Your task to perform on an android device: Open calendar and show me the third week of next month Image 0: 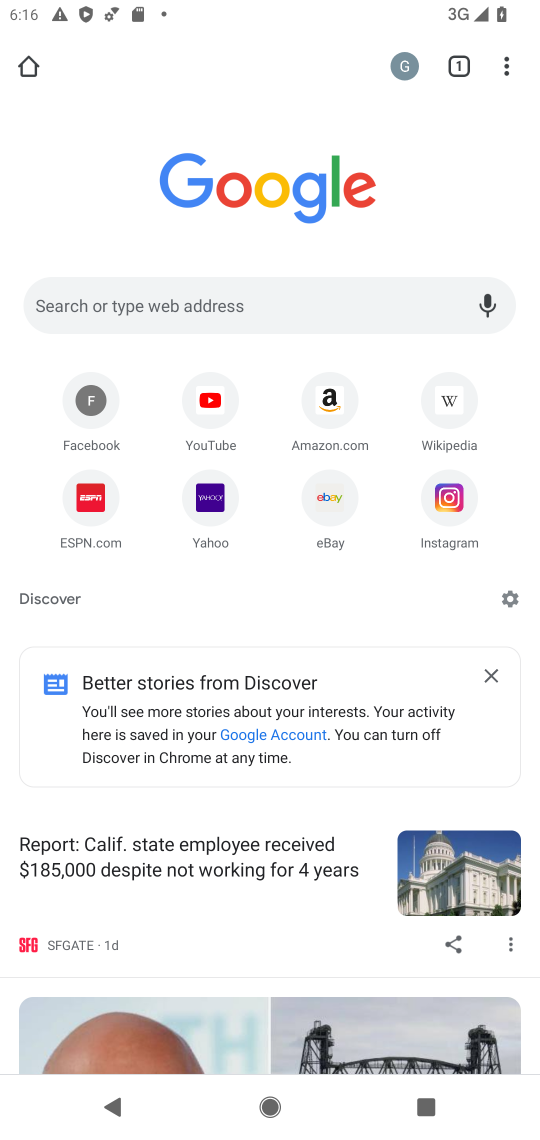
Step 0: press home button
Your task to perform on an android device: Open calendar and show me the third week of next month Image 1: 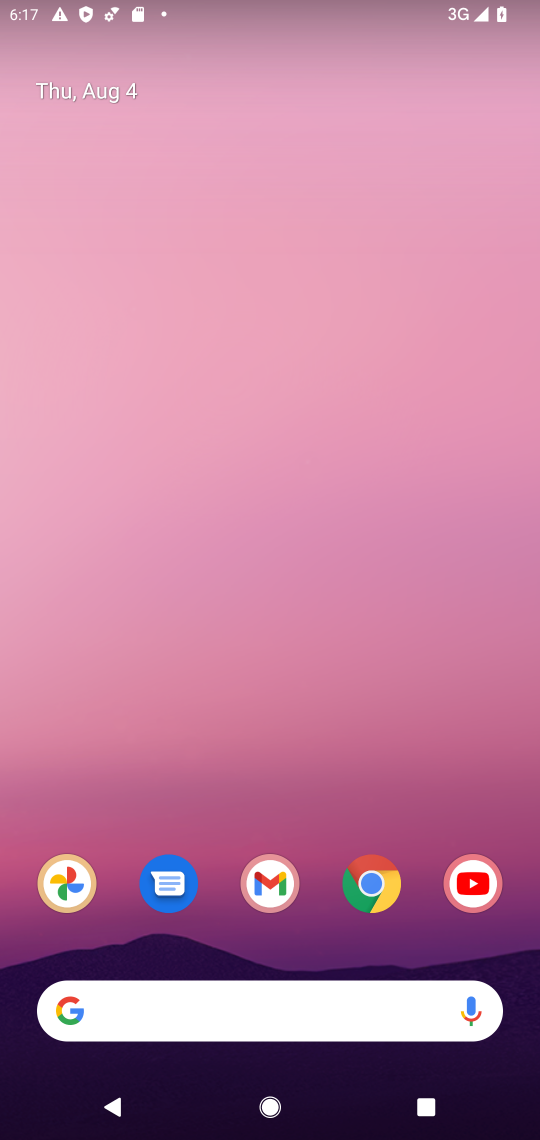
Step 1: drag from (317, 820) to (291, 116)
Your task to perform on an android device: Open calendar and show me the third week of next month Image 2: 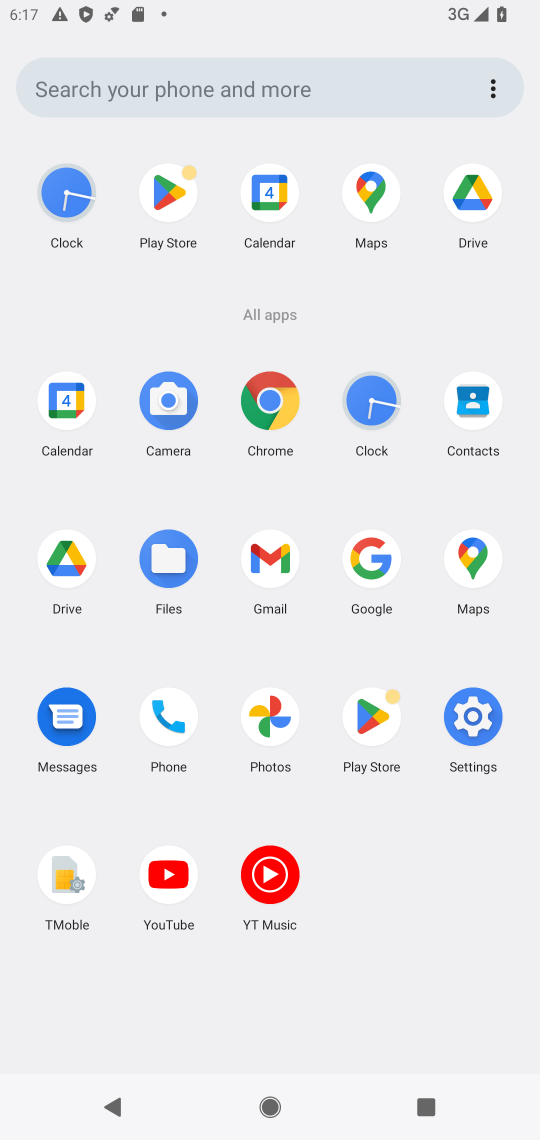
Step 2: click (259, 205)
Your task to perform on an android device: Open calendar and show me the third week of next month Image 3: 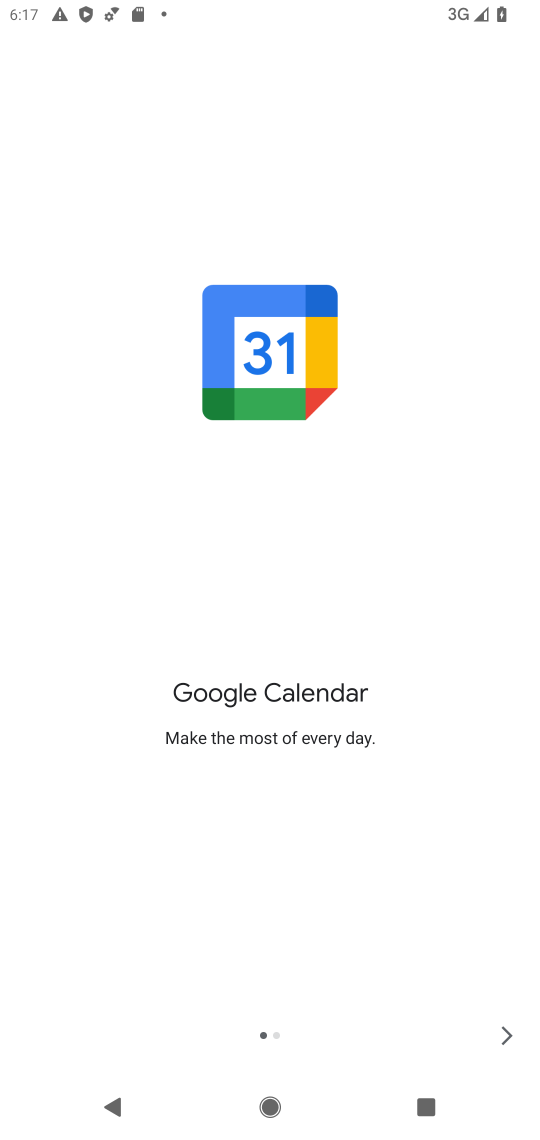
Step 3: click (506, 1025)
Your task to perform on an android device: Open calendar and show me the third week of next month Image 4: 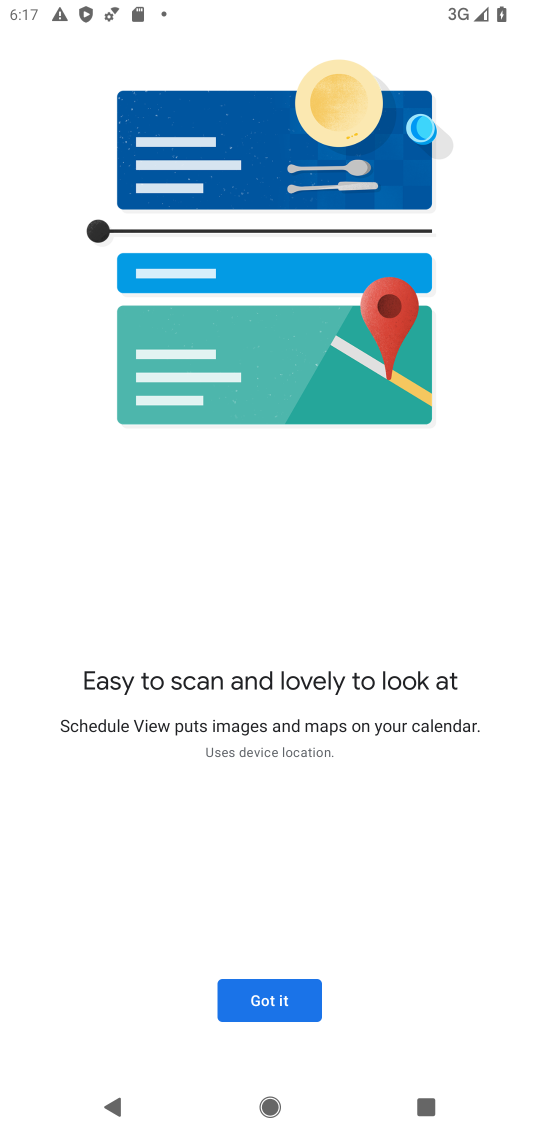
Step 4: click (302, 985)
Your task to perform on an android device: Open calendar and show me the third week of next month Image 5: 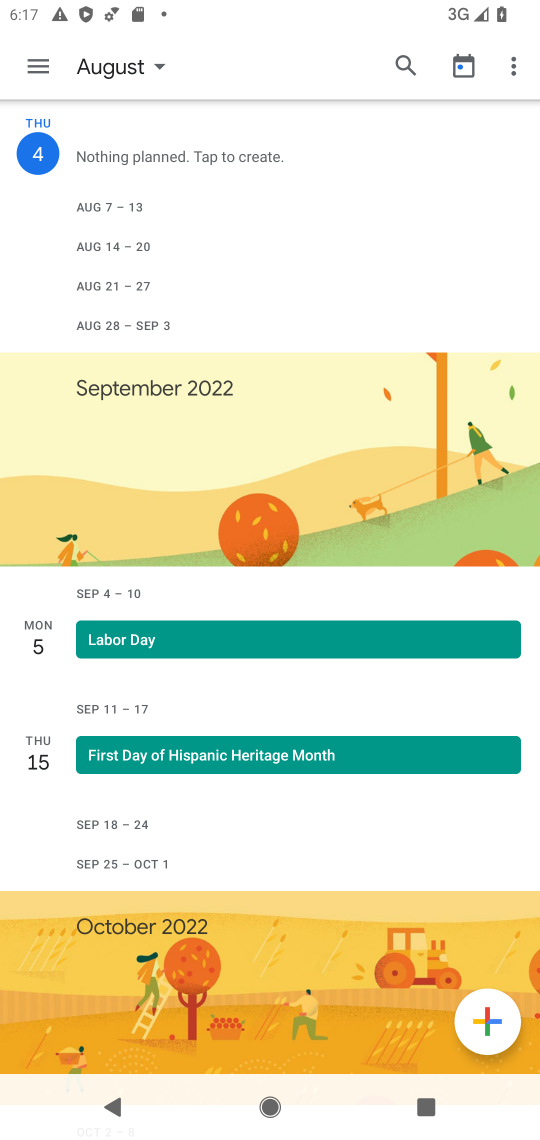
Step 5: click (29, 62)
Your task to perform on an android device: Open calendar and show me the third week of next month Image 6: 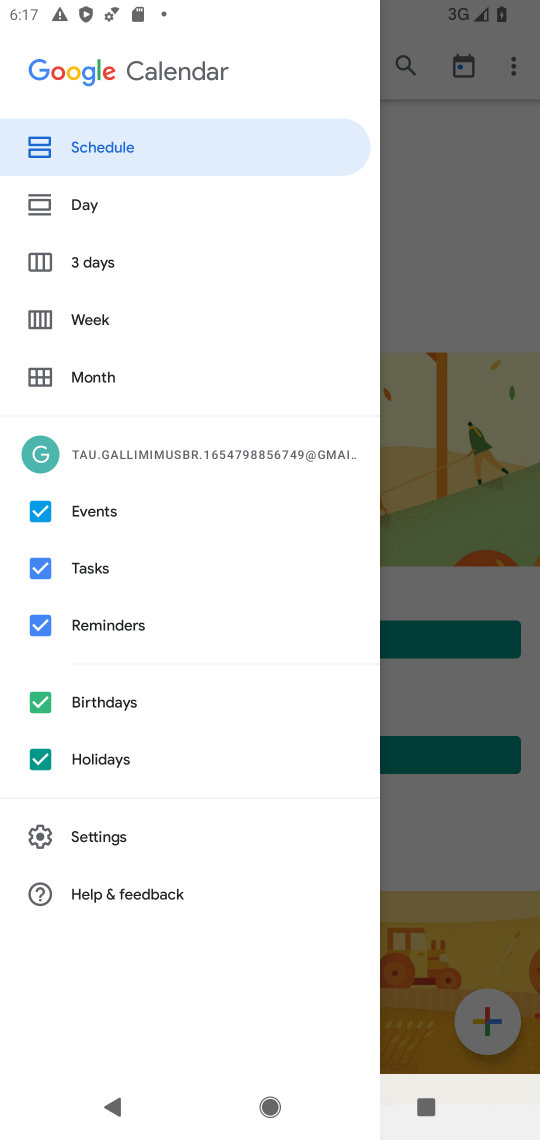
Step 6: click (127, 319)
Your task to perform on an android device: Open calendar and show me the third week of next month Image 7: 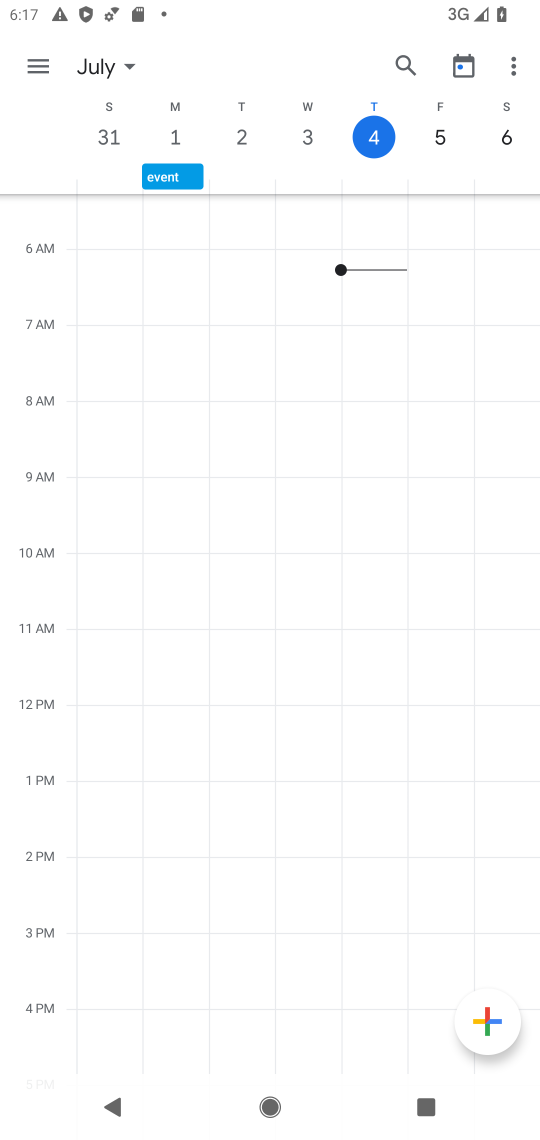
Step 7: click (123, 74)
Your task to perform on an android device: Open calendar and show me the third week of next month Image 8: 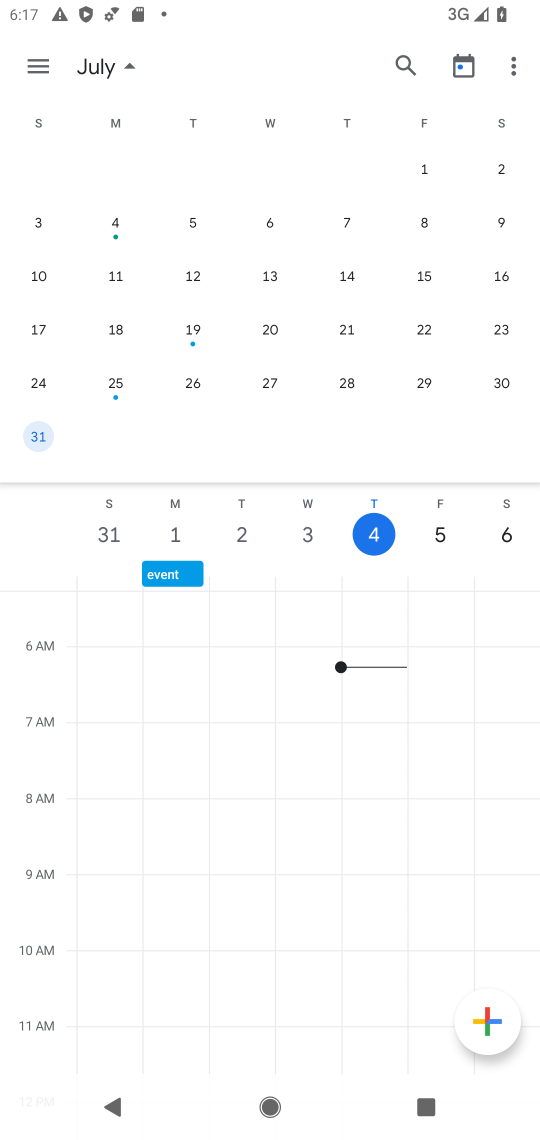
Step 8: drag from (497, 316) to (31, 267)
Your task to perform on an android device: Open calendar and show me the third week of next month Image 9: 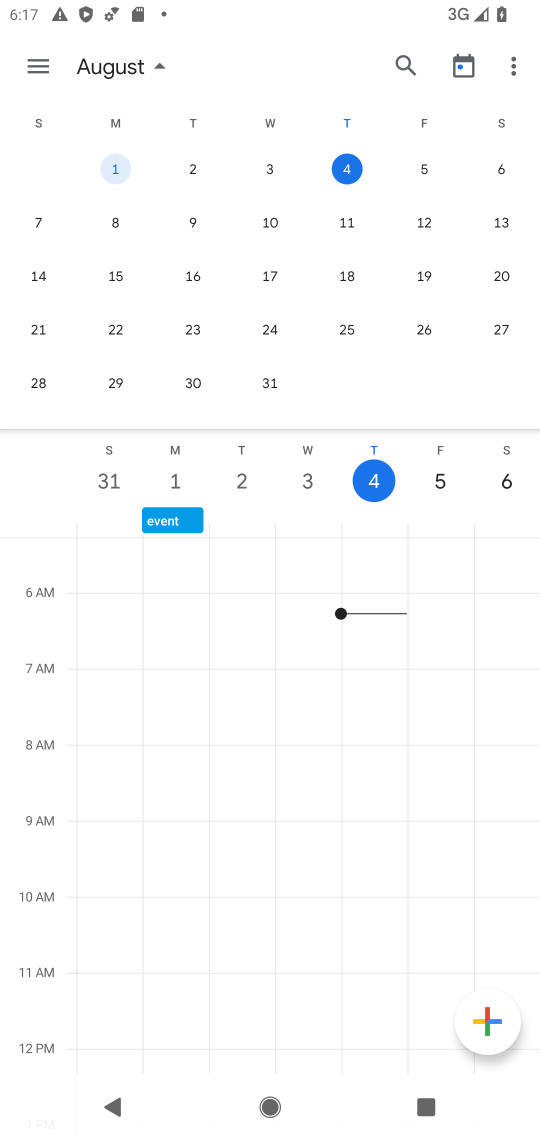
Step 9: drag from (530, 289) to (15, 270)
Your task to perform on an android device: Open calendar and show me the third week of next month Image 10: 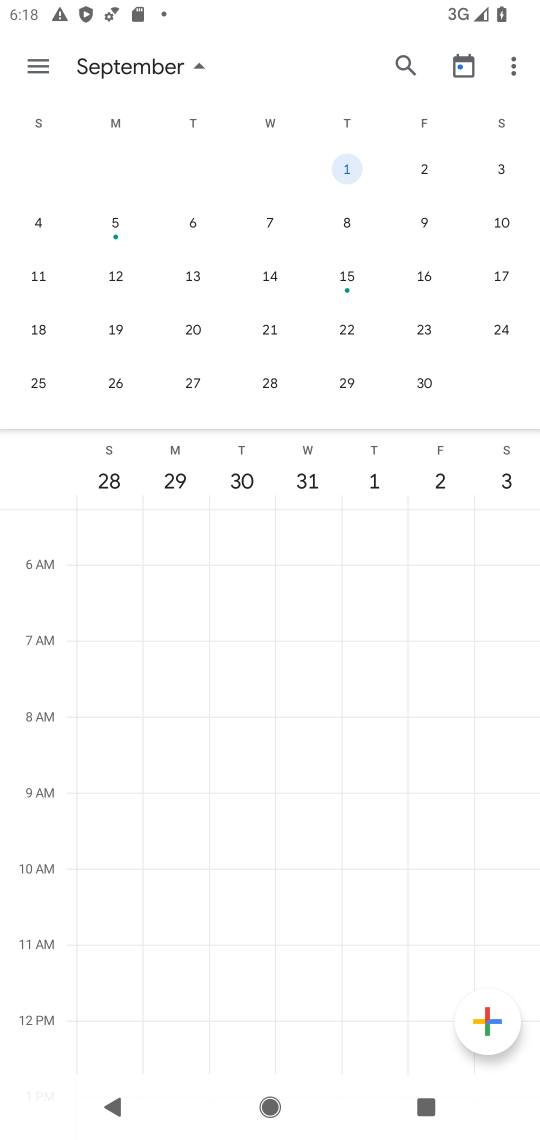
Step 10: click (269, 281)
Your task to perform on an android device: Open calendar and show me the third week of next month Image 11: 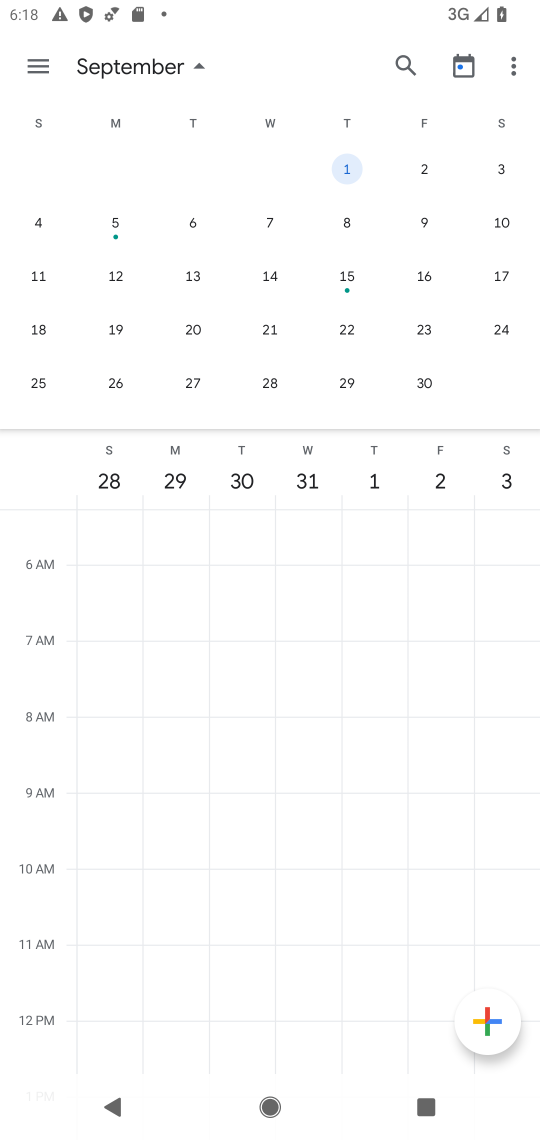
Step 11: click (269, 330)
Your task to perform on an android device: Open calendar and show me the third week of next month Image 12: 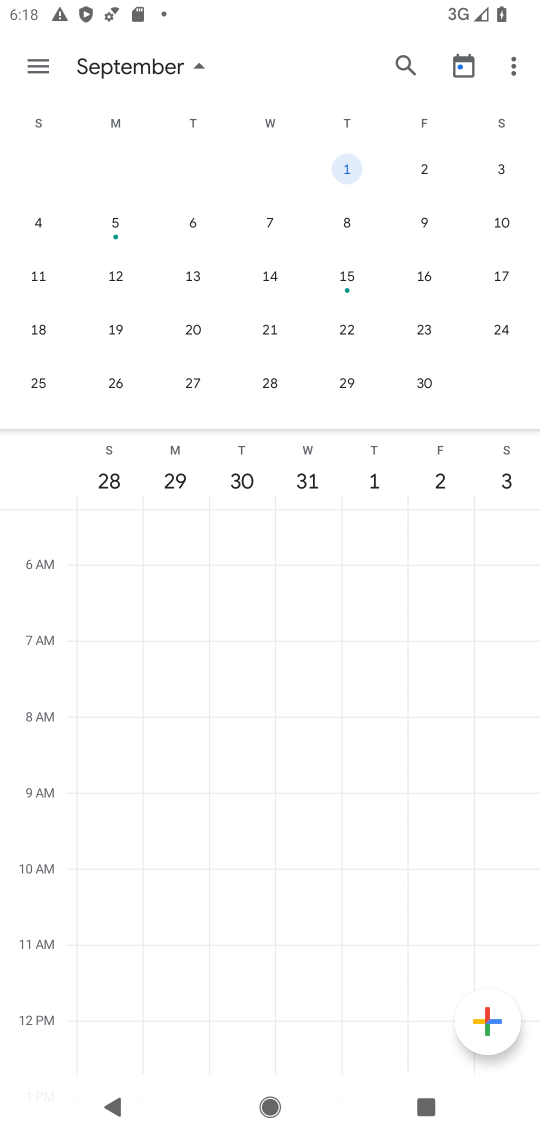
Step 12: click (269, 330)
Your task to perform on an android device: Open calendar and show me the third week of next month Image 13: 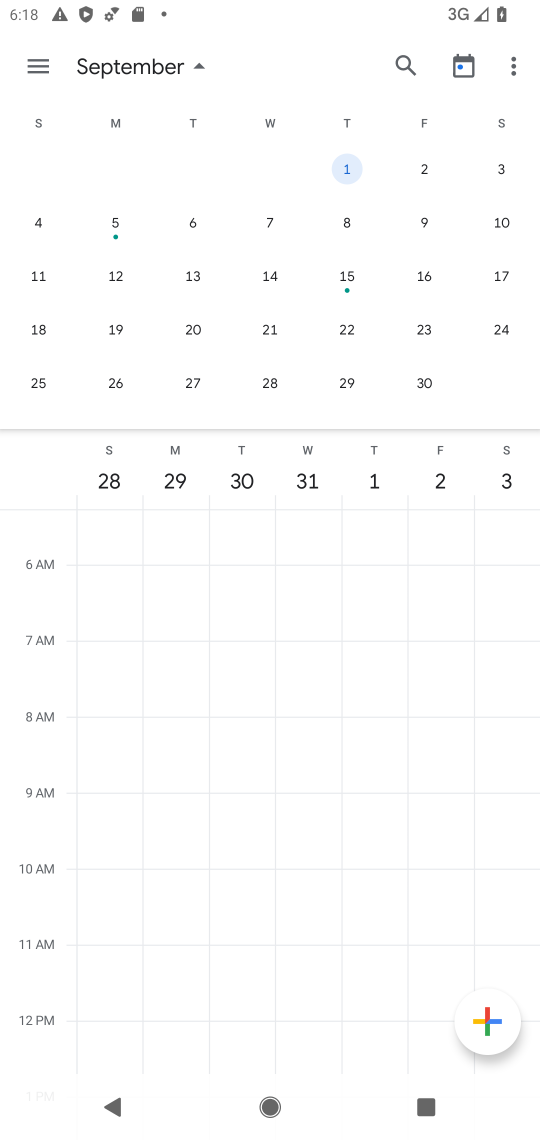
Step 13: click (269, 330)
Your task to perform on an android device: Open calendar and show me the third week of next month Image 14: 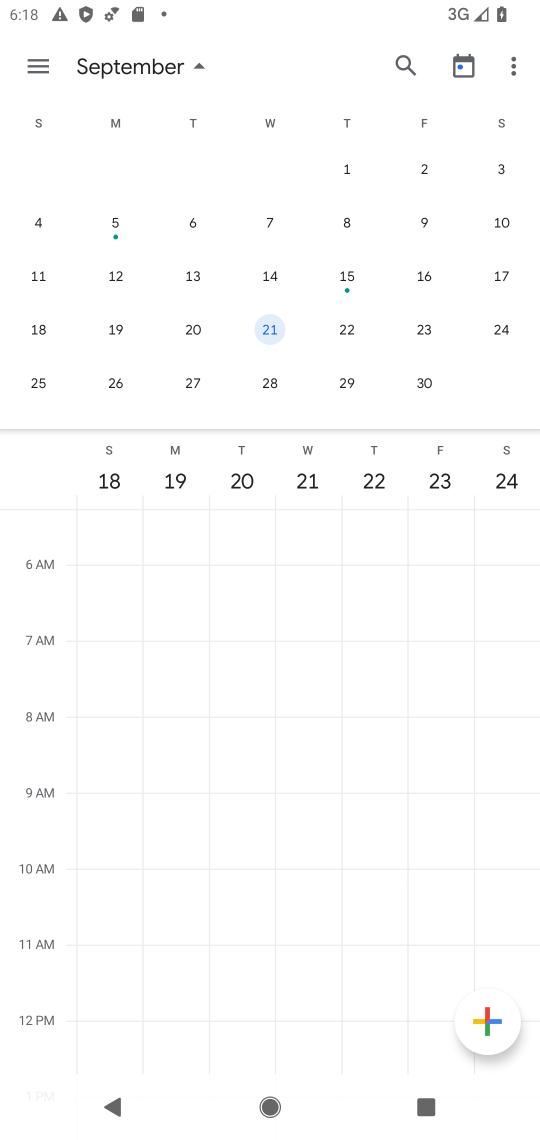
Step 14: click (263, 326)
Your task to perform on an android device: Open calendar and show me the third week of next month Image 15: 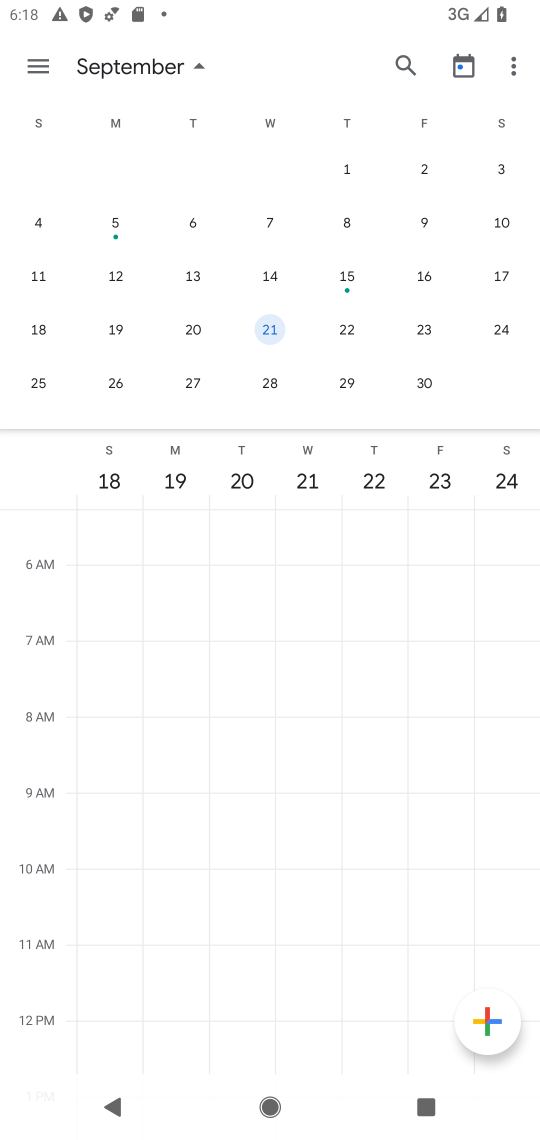
Step 15: task complete